Your task to perform on an android device: Show me the alarms in the clock app Image 0: 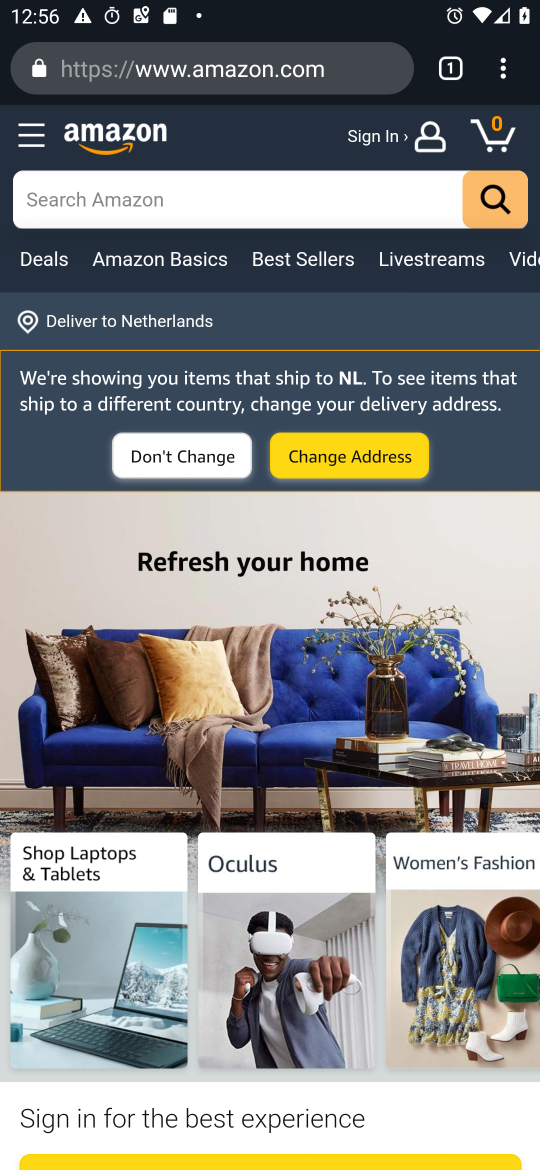
Step 0: press home button
Your task to perform on an android device: Show me the alarms in the clock app Image 1: 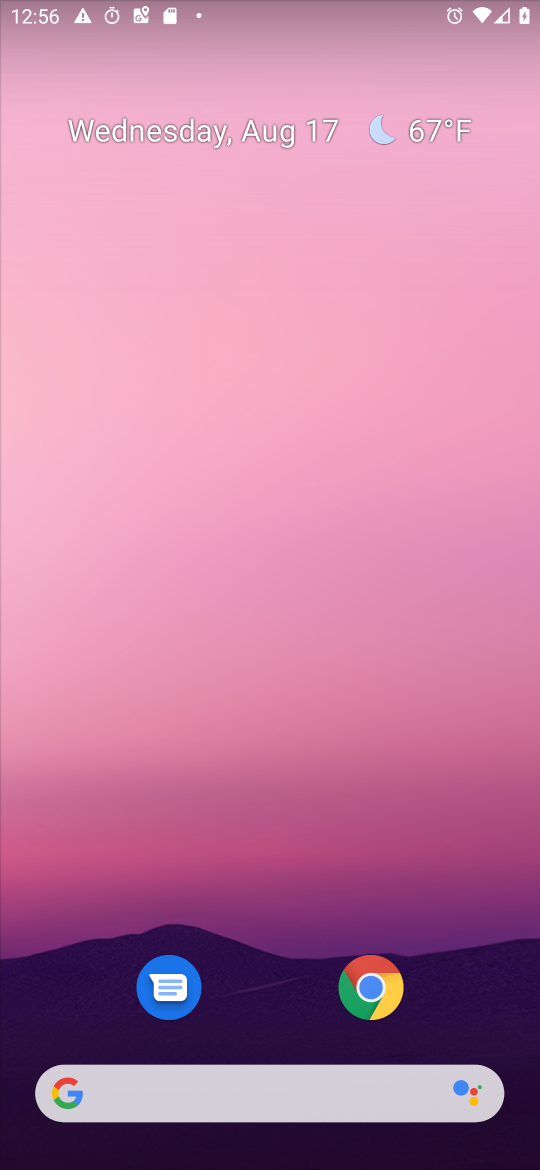
Step 1: drag from (19, 1141) to (286, 463)
Your task to perform on an android device: Show me the alarms in the clock app Image 2: 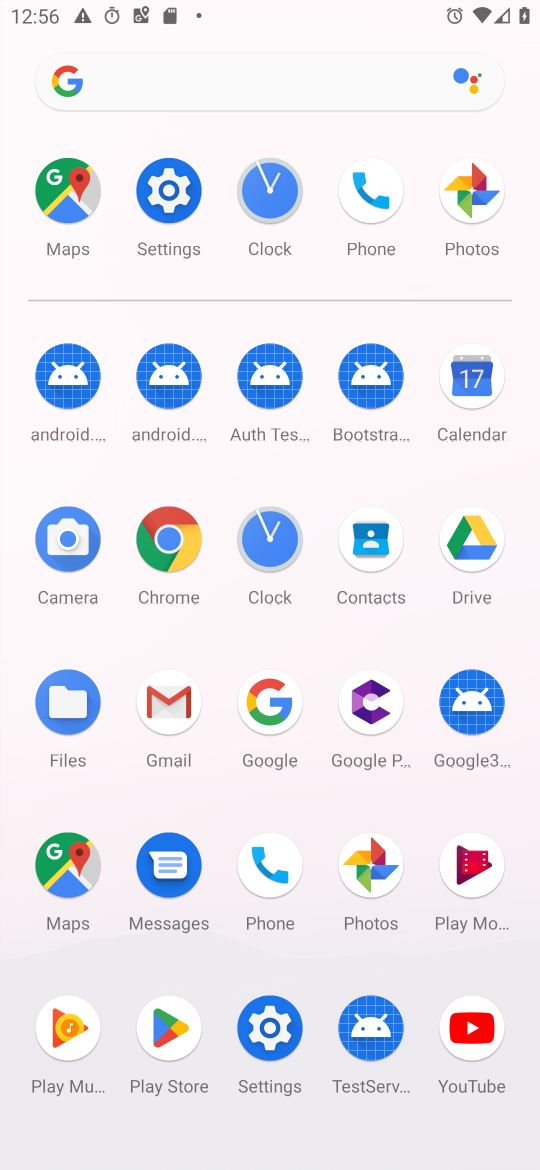
Step 2: click (276, 200)
Your task to perform on an android device: Show me the alarms in the clock app Image 3: 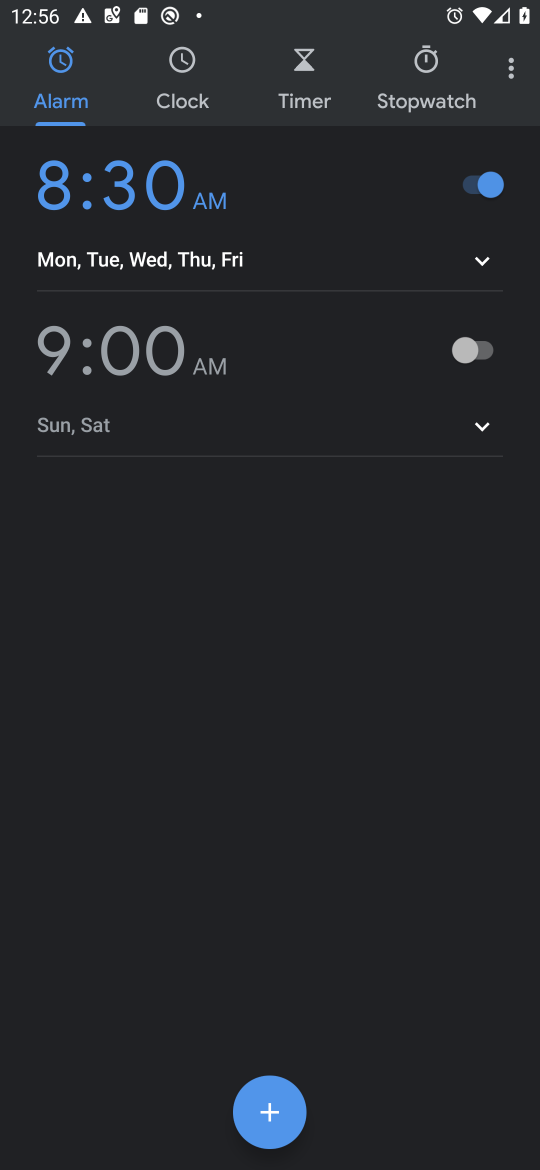
Step 3: click (505, 61)
Your task to perform on an android device: Show me the alarms in the clock app Image 4: 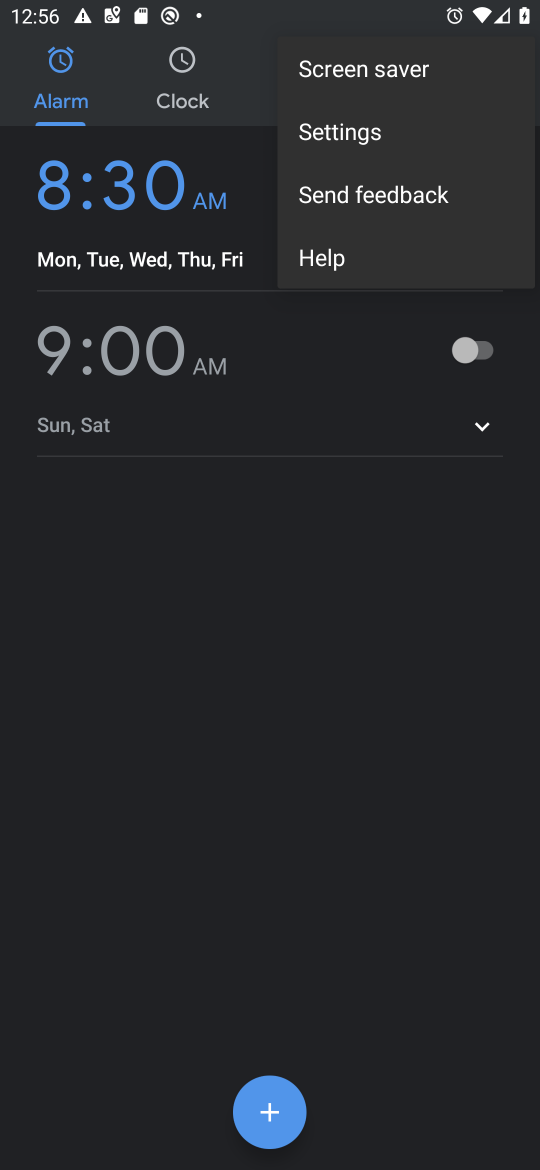
Step 4: task complete